Your task to perform on an android device: Do I have any events today? Image 0: 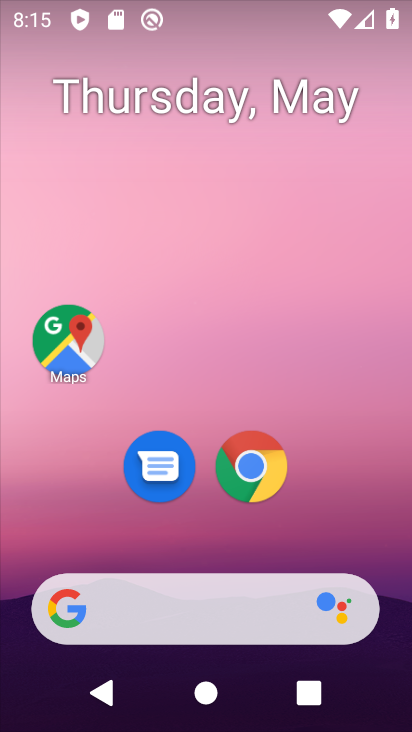
Step 0: drag from (361, 550) to (290, 95)
Your task to perform on an android device: Do I have any events today? Image 1: 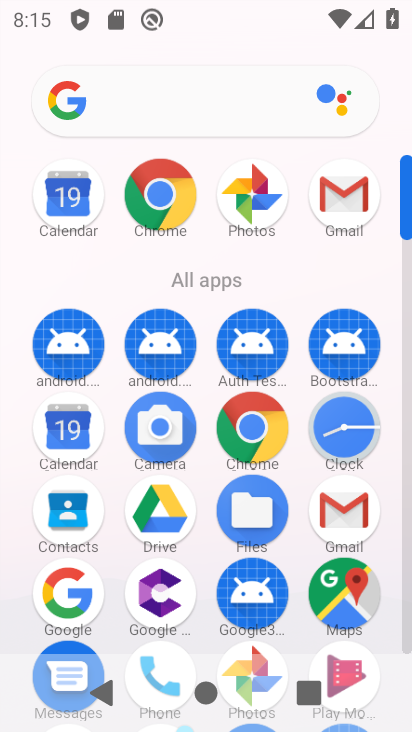
Step 1: click (77, 427)
Your task to perform on an android device: Do I have any events today? Image 2: 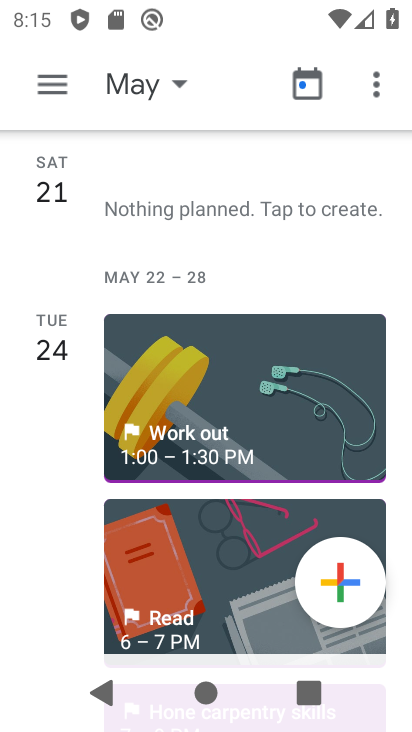
Step 2: click (126, 85)
Your task to perform on an android device: Do I have any events today? Image 3: 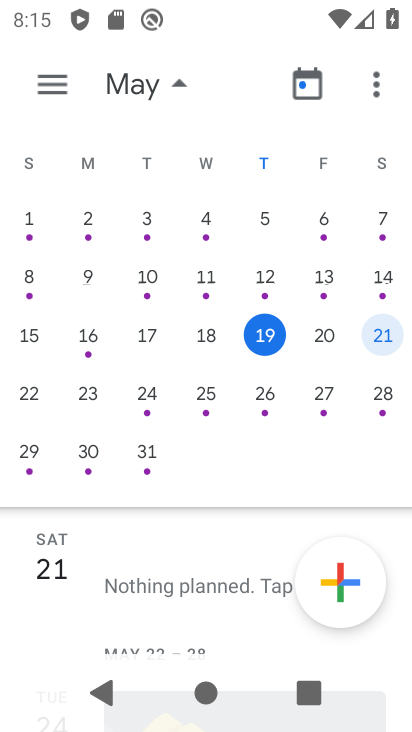
Step 3: click (322, 338)
Your task to perform on an android device: Do I have any events today? Image 4: 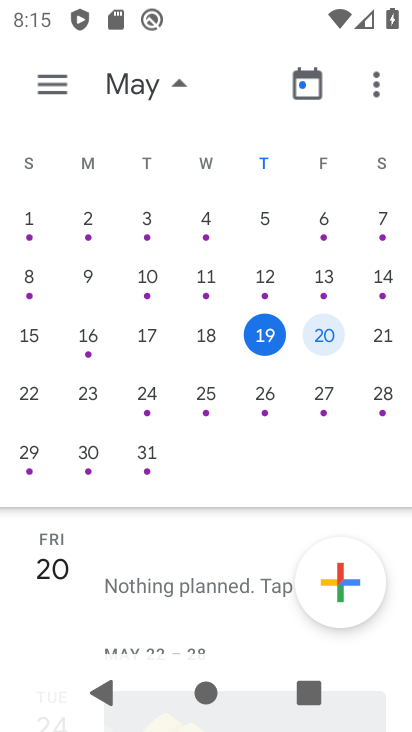
Step 4: click (181, 80)
Your task to perform on an android device: Do I have any events today? Image 5: 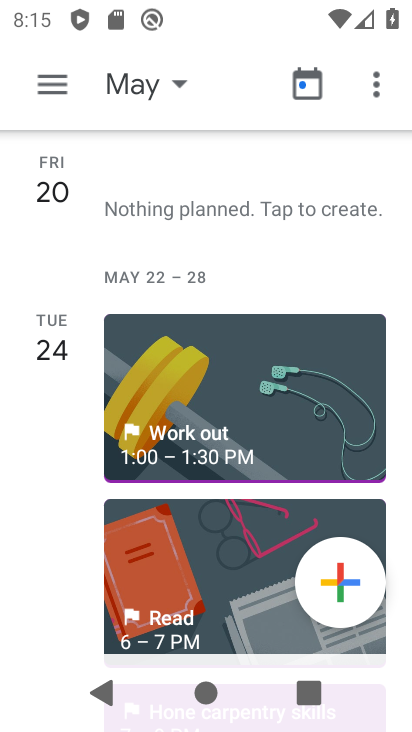
Step 5: task complete